Your task to perform on an android device: turn on notifications settings in the gmail app Image 0: 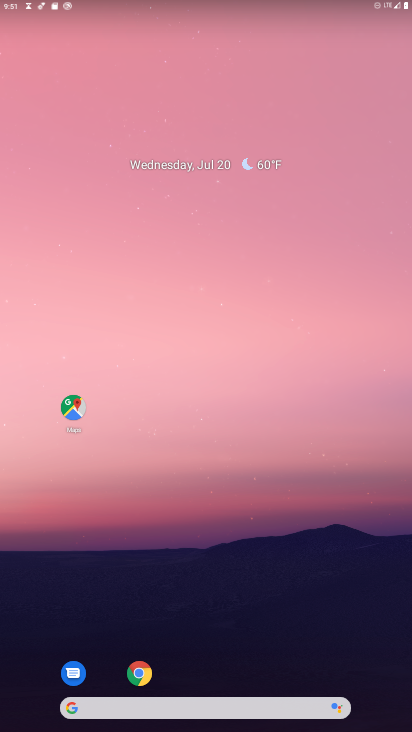
Step 0: drag from (160, 384) to (160, 336)
Your task to perform on an android device: turn on notifications settings in the gmail app Image 1: 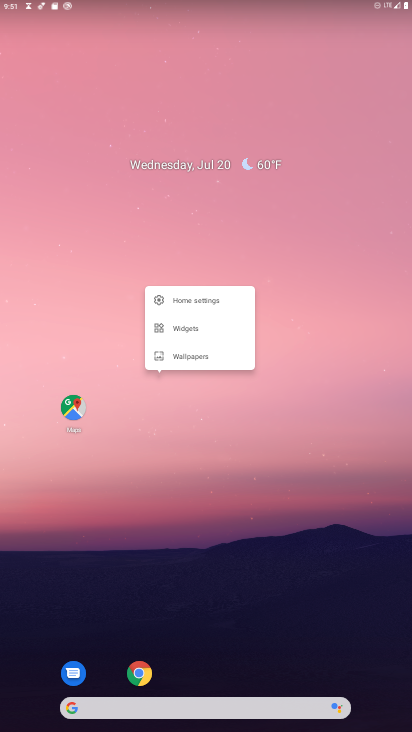
Step 1: click (197, 646)
Your task to perform on an android device: turn on notifications settings in the gmail app Image 2: 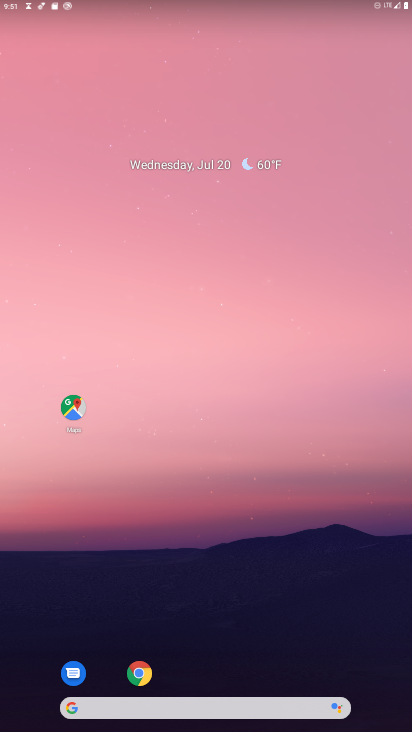
Step 2: drag from (193, 554) to (221, 15)
Your task to perform on an android device: turn on notifications settings in the gmail app Image 3: 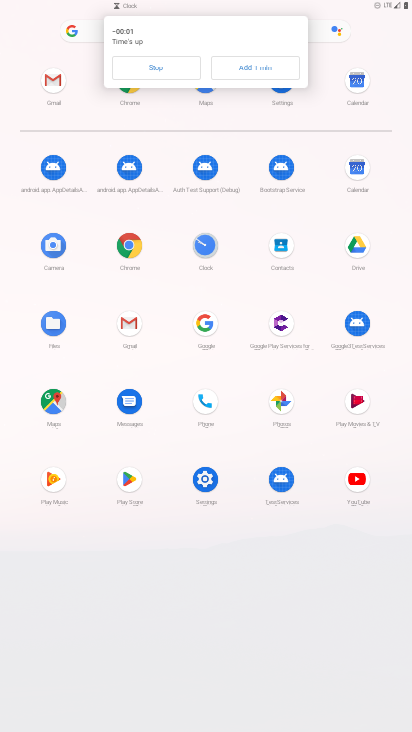
Step 3: click (57, 81)
Your task to perform on an android device: turn on notifications settings in the gmail app Image 4: 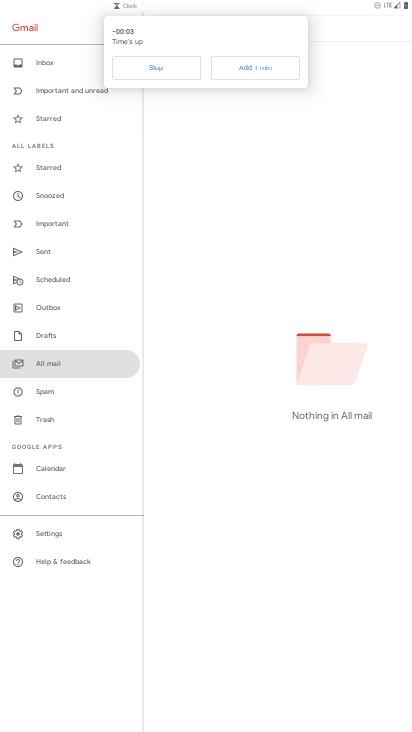
Step 4: click (181, 63)
Your task to perform on an android device: turn on notifications settings in the gmail app Image 5: 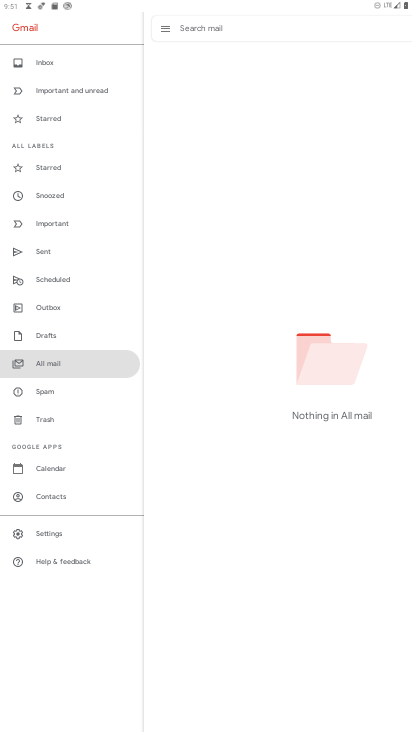
Step 5: click (41, 533)
Your task to perform on an android device: turn on notifications settings in the gmail app Image 6: 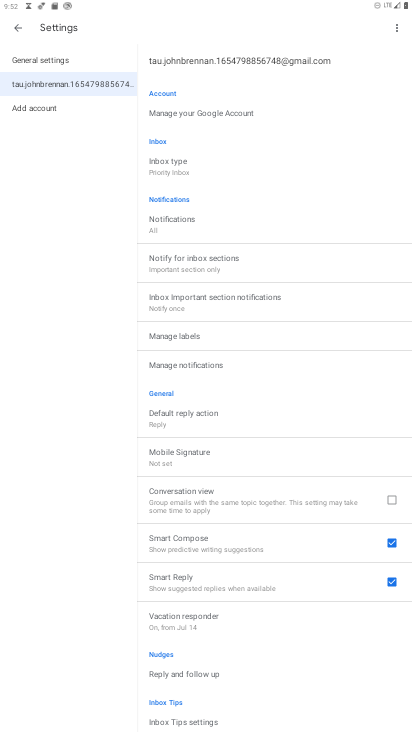
Step 6: click (188, 366)
Your task to perform on an android device: turn on notifications settings in the gmail app Image 7: 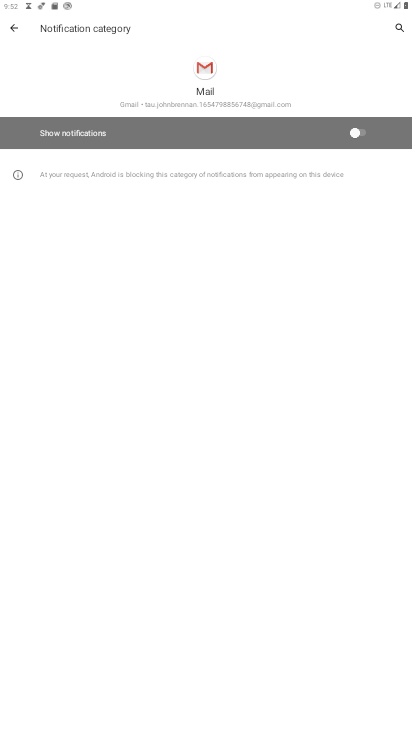
Step 7: click (368, 130)
Your task to perform on an android device: turn on notifications settings in the gmail app Image 8: 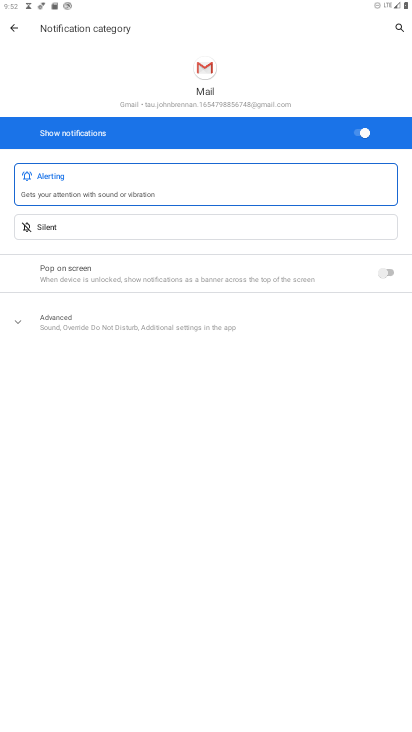
Step 8: task complete